Your task to perform on an android device: change alarm snooze length Image 0: 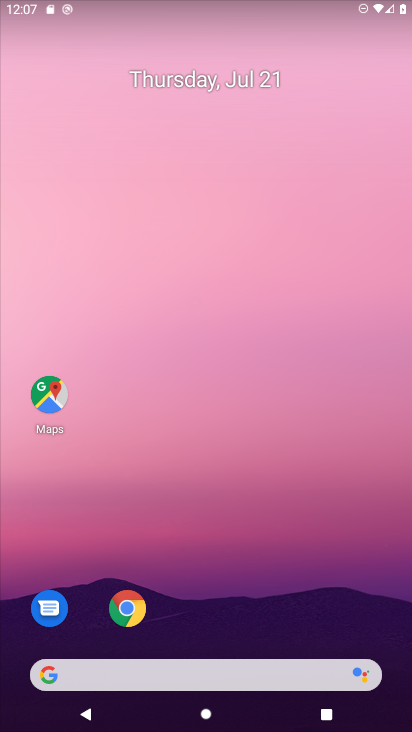
Step 0: press home button
Your task to perform on an android device: change alarm snooze length Image 1: 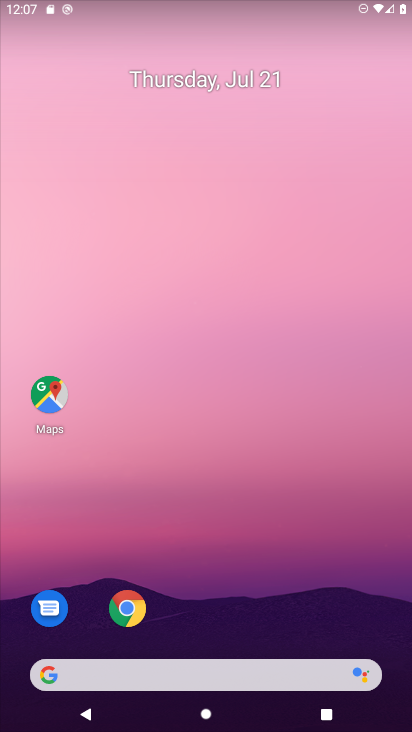
Step 1: drag from (233, 632) to (218, 92)
Your task to perform on an android device: change alarm snooze length Image 2: 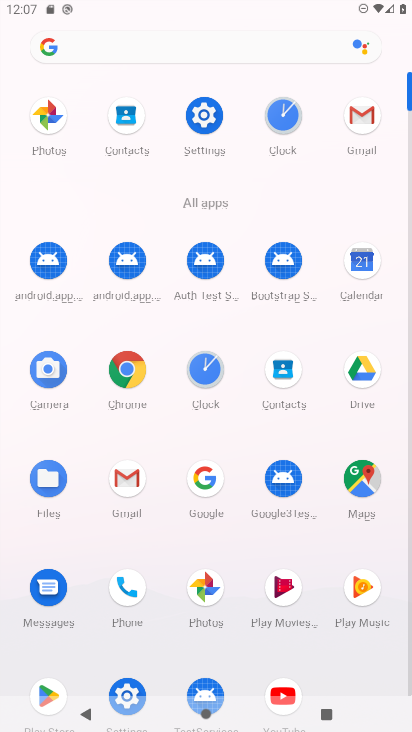
Step 2: click (284, 126)
Your task to perform on an android device: change alarm snooze length Image 3: 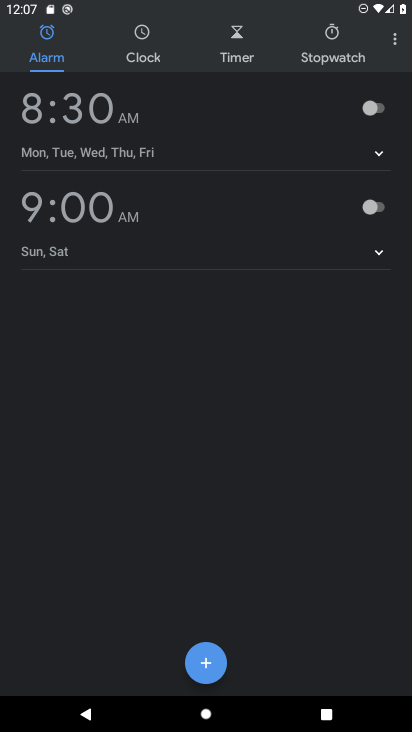
Step 3: click (392, 39)
Your task to perform on an android device: change alarm snooze length Image 4: 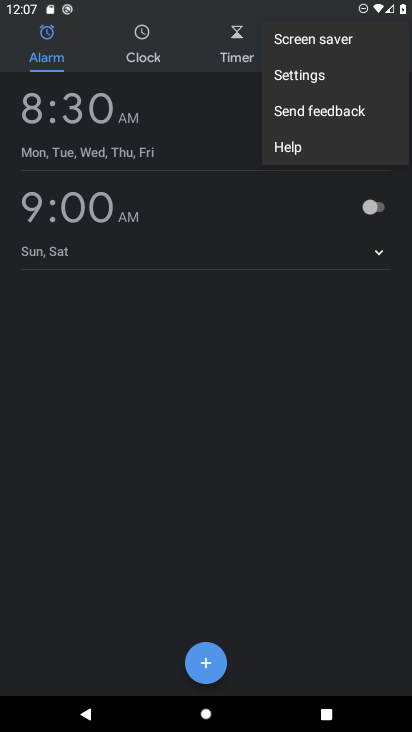
Step 4: click (309, 76)
Your task to perform on an android device: change alarm snooze length Image 5: 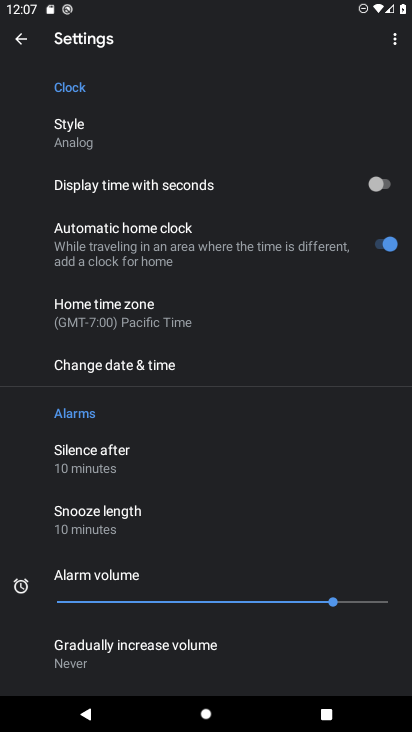
Step 5: click (80, 516)
Your task to perform on an android device: change alarm snooze length Image 6: 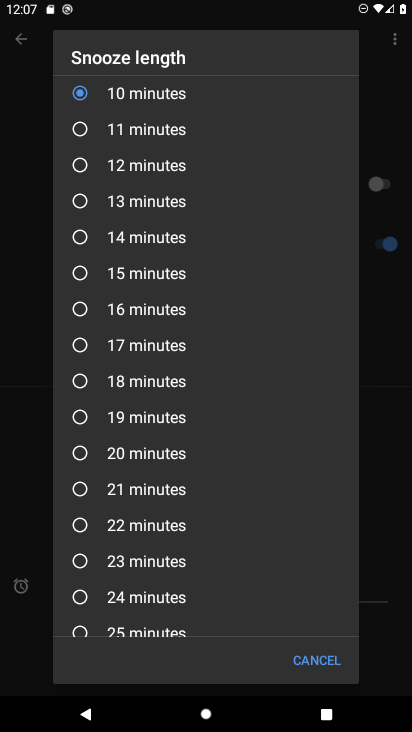
Step 6: click (81, 274)
Your task to perform on an android device: change alarm snooze length Image 7: 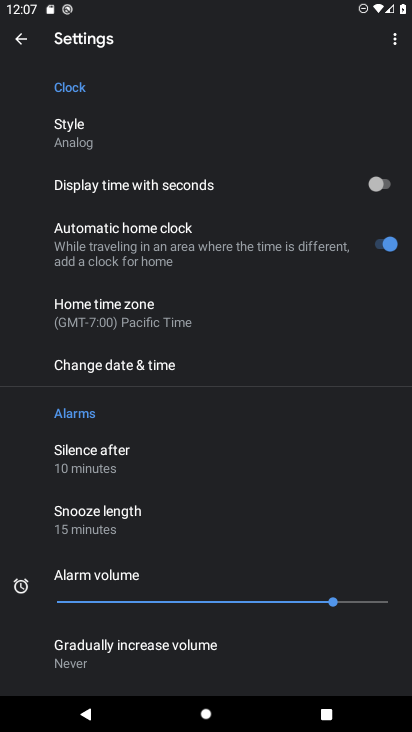
Step 7: task complete